Your task to perform on an android device: Show me recent news Image 0: 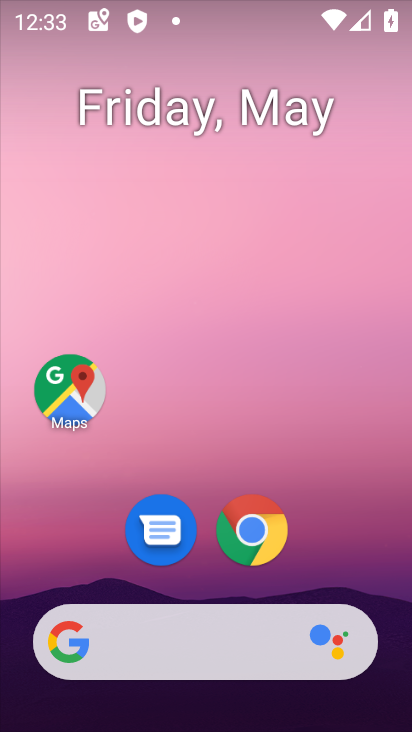
Step 0: drag from (318, 565) to (255, 136)
Your task to perform on an android device: Show me recent news Image 1: 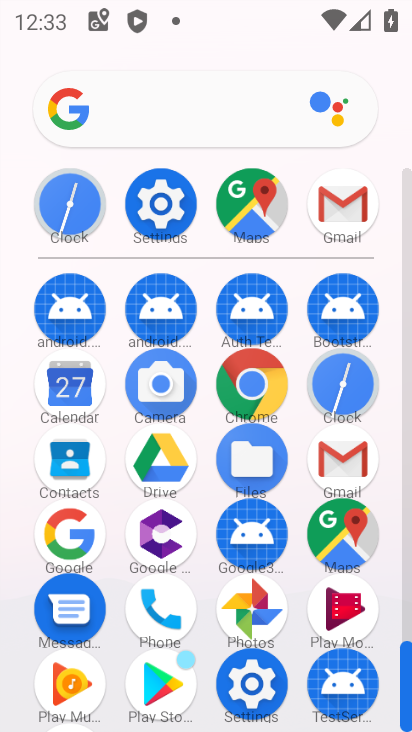
Step 1: click (63, 533)
Your task to perform on an android device: Show me recent news Image 2: 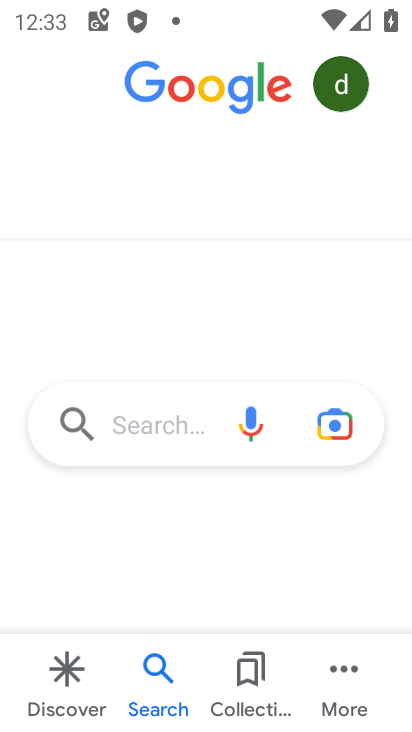
Step 2: click (131, 425)
Your task to perform on an android device: Show me recent news Image 3: 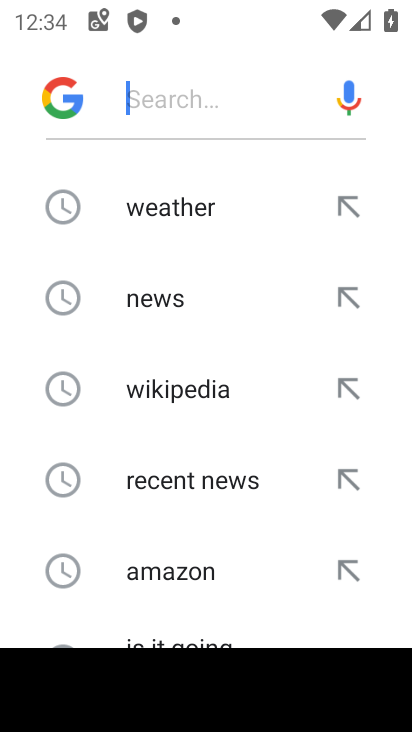
Step 3: type "recent news"
Your task to perform on an android device: Show me recent news Image 4: 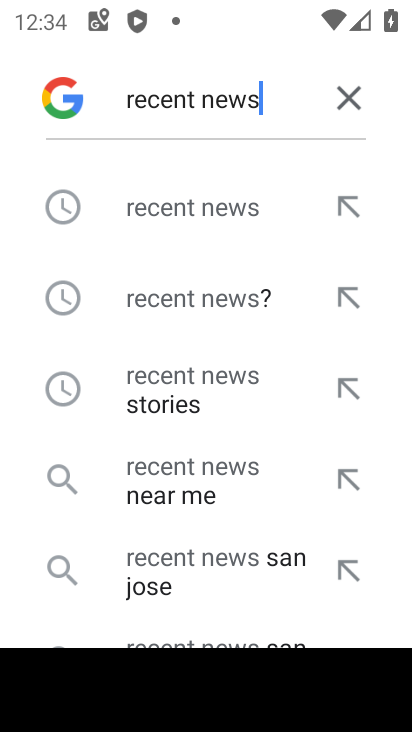
Step 4: click (209, 196)
Your task to perform on an android device: Show me recent news Image 5: 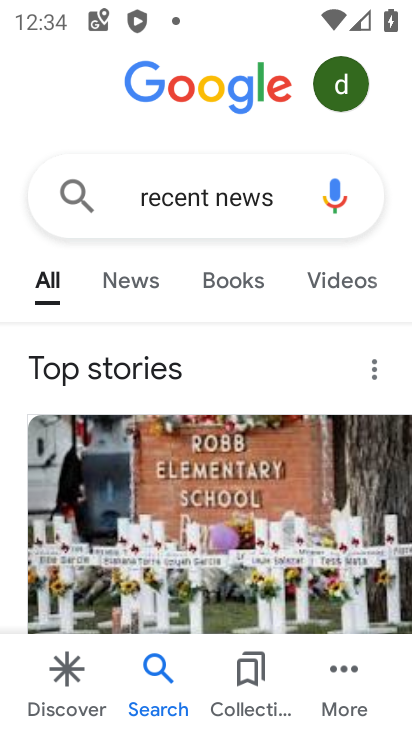
Step 5: task complete